Your task to perform on an android device: Check the weather Image 0: 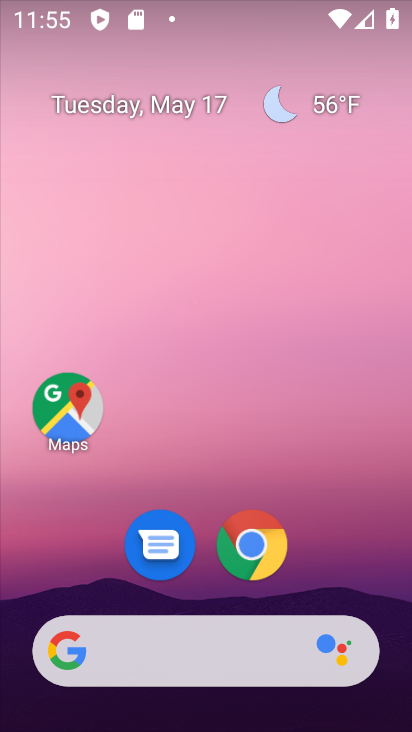
Step 0: drag from (341, 578) to (288, 28)
Your task to perform on an android device: Check the weather Image 1: 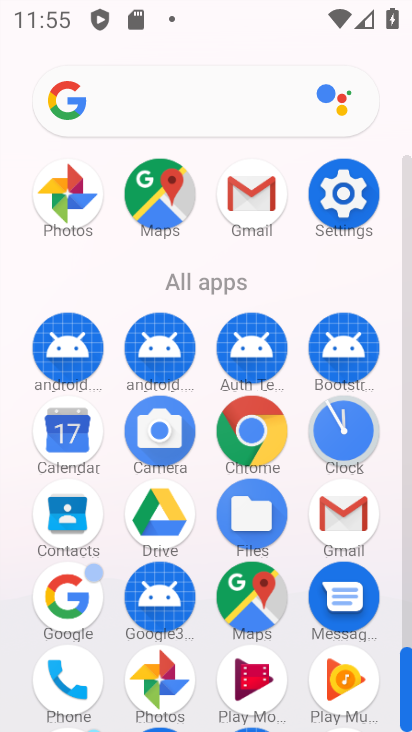
Step 1: click (67, 599)
Your task to perform on an android device: Check the weather Image 2: 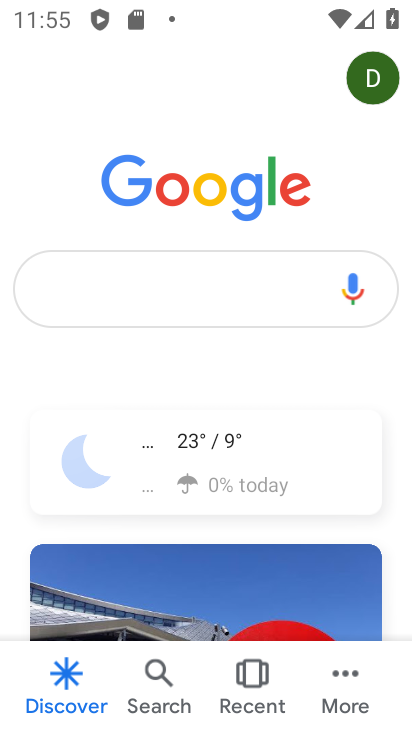
Step 2: click (199, 479)
Your task to perform on an android device: Check the weather Image 3: 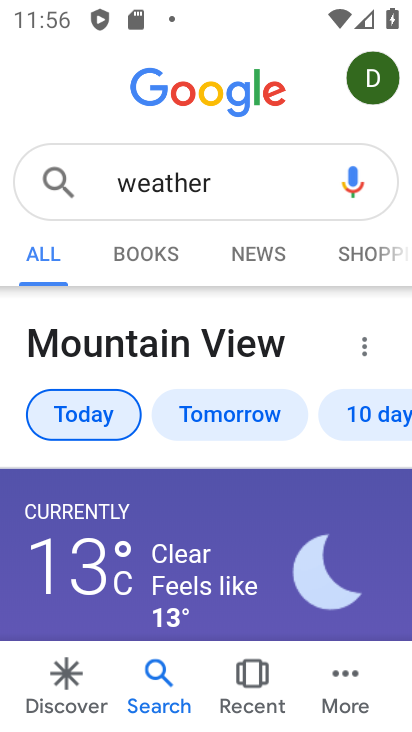
Step 3: task complete